Your task to perform on an android device: Go to Yahoo.com Image 0: 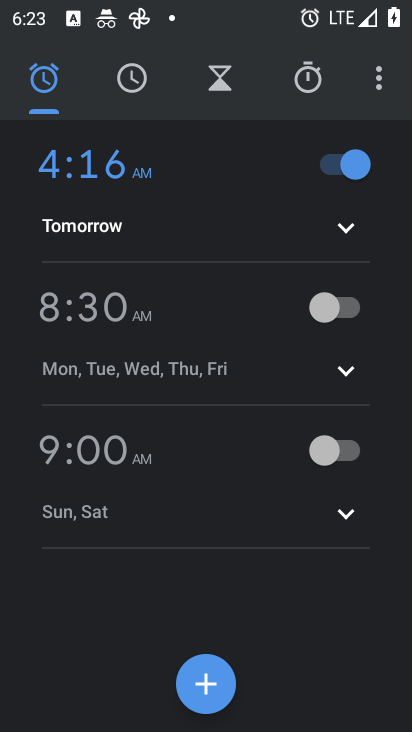
Step 0: click (315, 81)
Your task to perform on an android device: Go to Yahoo.com Image 1: 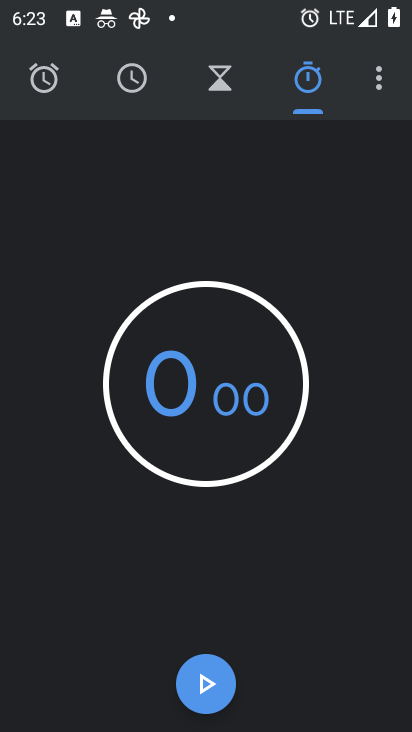
Step 1: press home button
Your task to perform on an android device: Go to Yahoo.com Image 2: 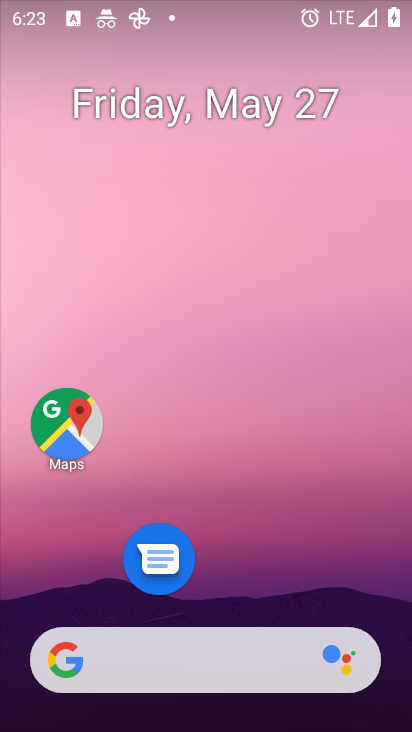
Step 2: drag from (348, 663) to (300, 5)
Your task to perform on an android device: Go to Yahoo.com Image 3: 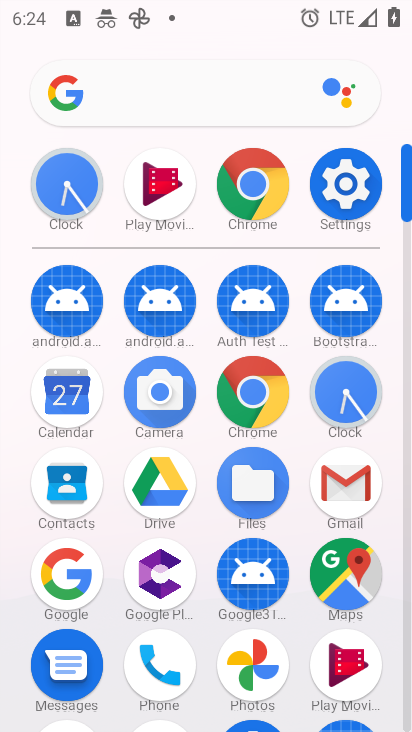
Step 3: click (262, 406)
Your task to perform on an android device: Go to Yahoo.com Image 4: 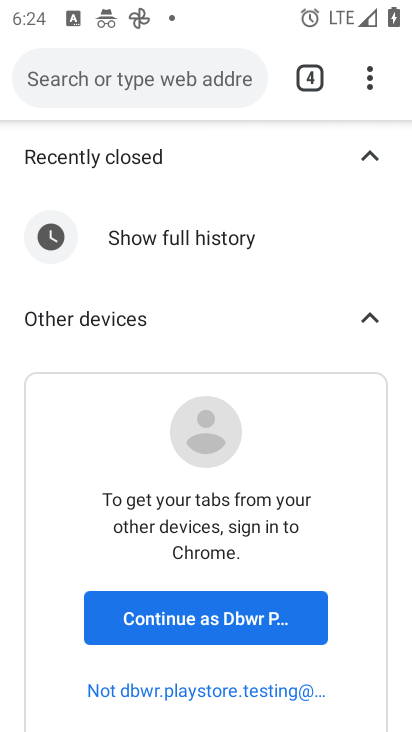
Step 4: click (195, 77)
Your task to perform on an android device: Go to Yahoo.com Image 5: 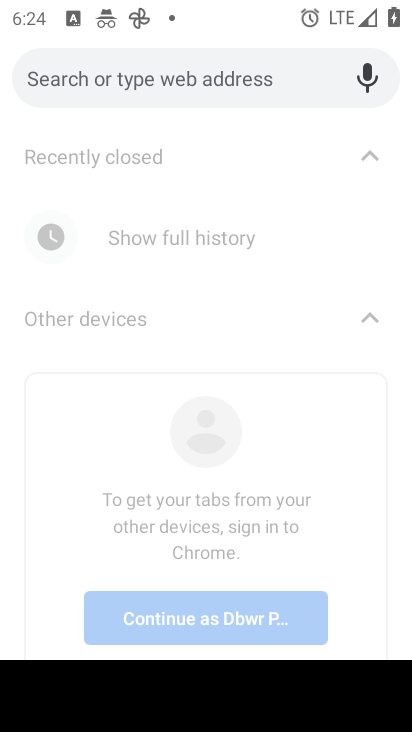
Step 5: type "yahoo.com"
Your task to perform on an android device: Go to Yahoo.com Image 6: 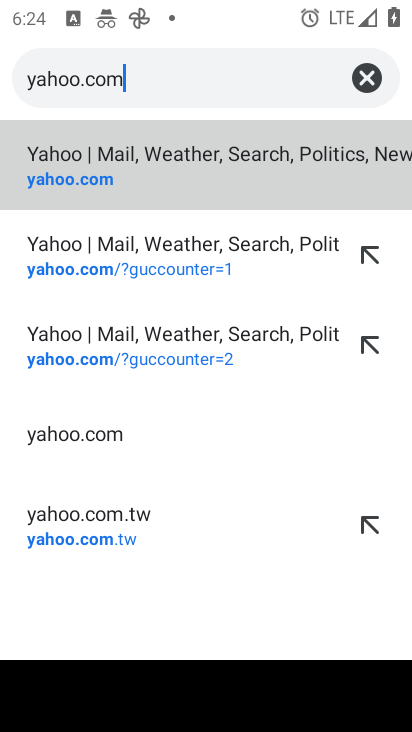
Step 6: click (265, 156)
Your task to perform on an android device: Go to Yahoo.com Image 7: 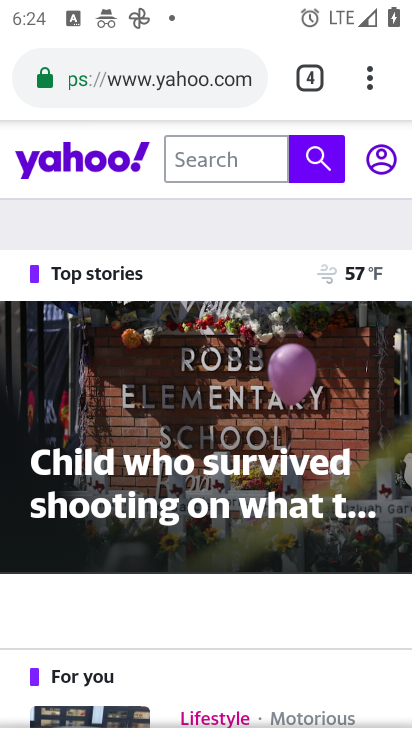
Step 7: task complete